Your task to perform on an android device: turn on the 24-hour format for clock Image 0: 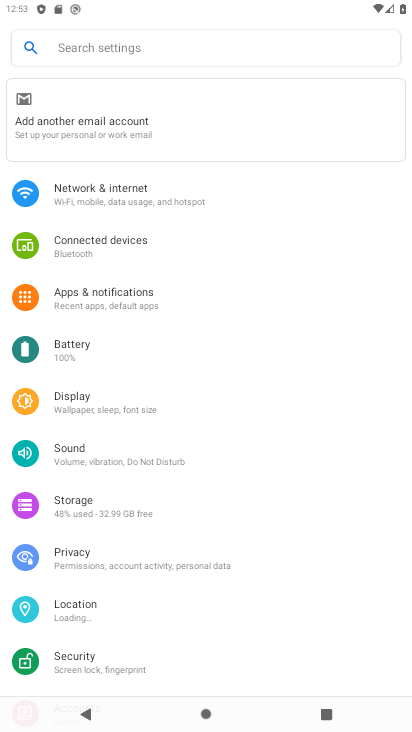
Step 0: press home button
Your task to perform on an android device: turn on the 24-hour format for clock Image 1: 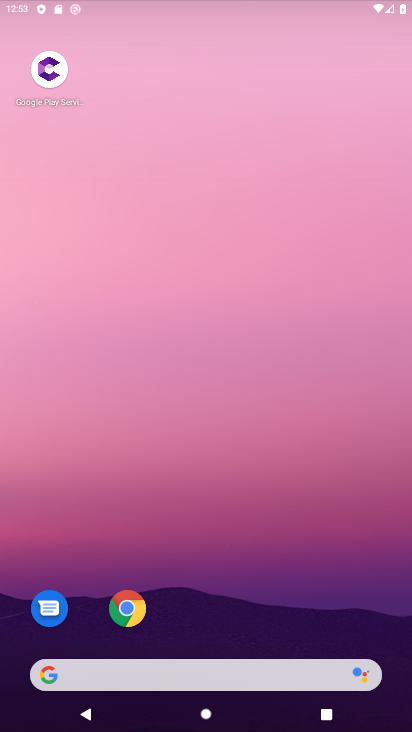
Step 1: drag from (240, 654) to (219, 73)
Your task to perform on an android device: turn on the 24-hour format for clock Image 2: 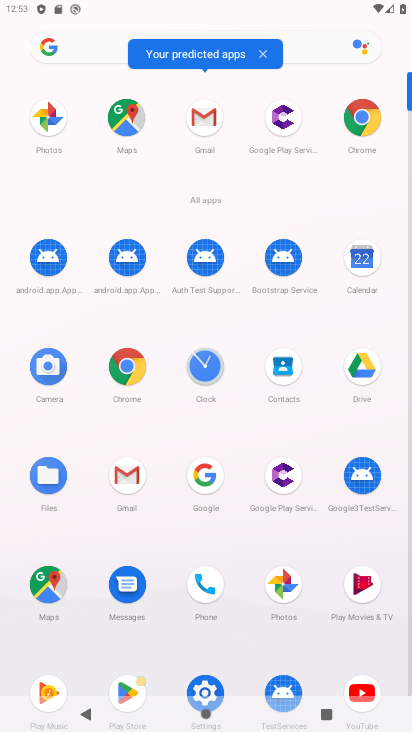
Step 2: click (205, 366)
Your task to perform on an android device: turn on the 24-hour format for clock Image 3: 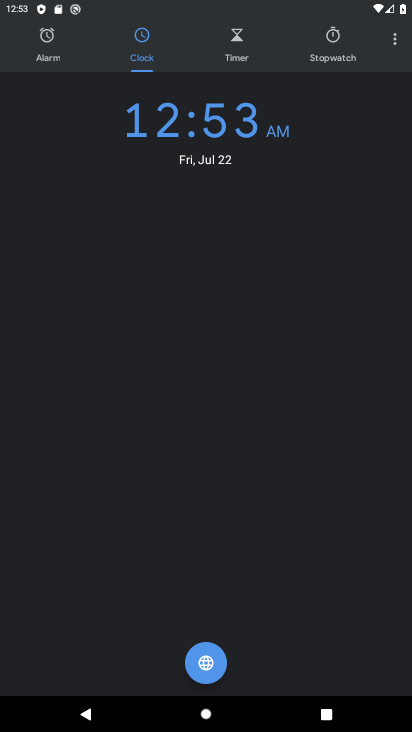
Step 3: click (391, 36)
Your task to perform on an android device: turn on the 24-hour format for clock Image 4: 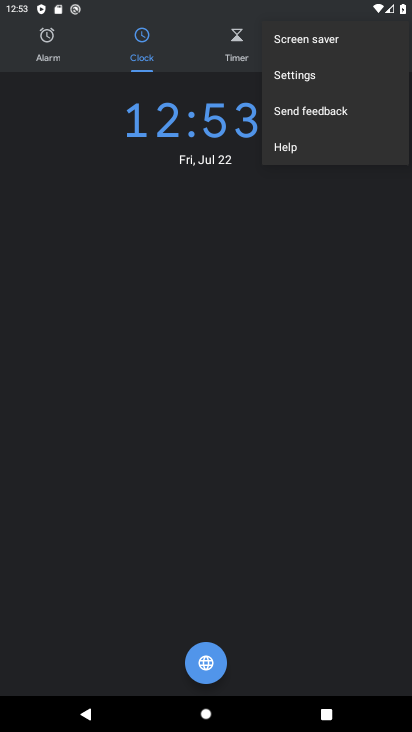
Step 4: click (300, 80)
Your task to perform on an android device: turn on the 24-hour format for clock Image 5: 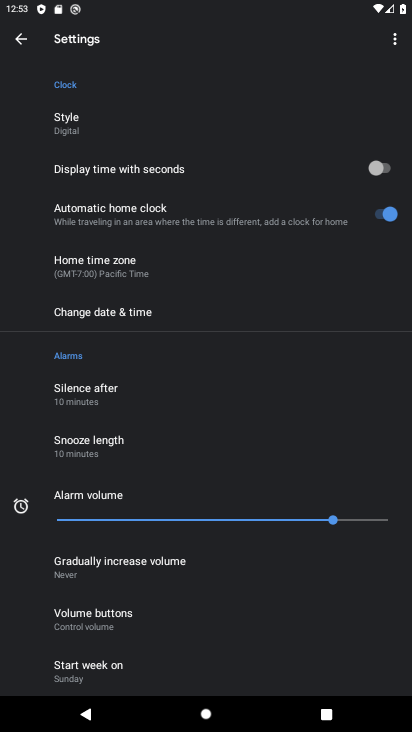
Step 5: click (141, 315)
Your task to perform on an android device: turn on the 24-hour format for clock Image 6: 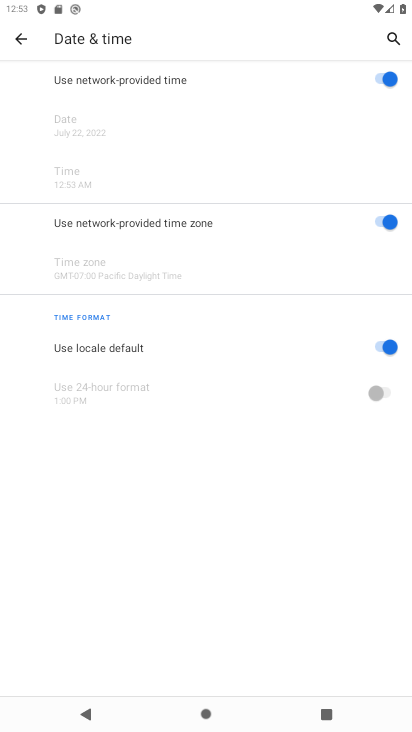
Step 6: click (386, 346)
Your task to perform on an android device: turn on the 24-hour format for clock Image 7: 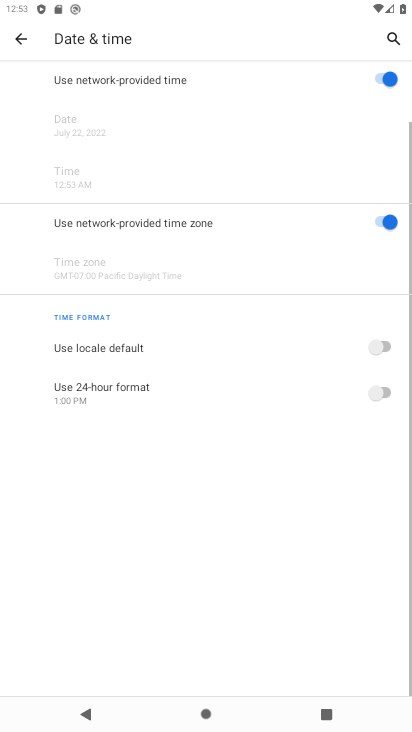
Step 7: click (381, 390)
Your task to perform on an android device: turn on the 24-hour format for clock Image 8: 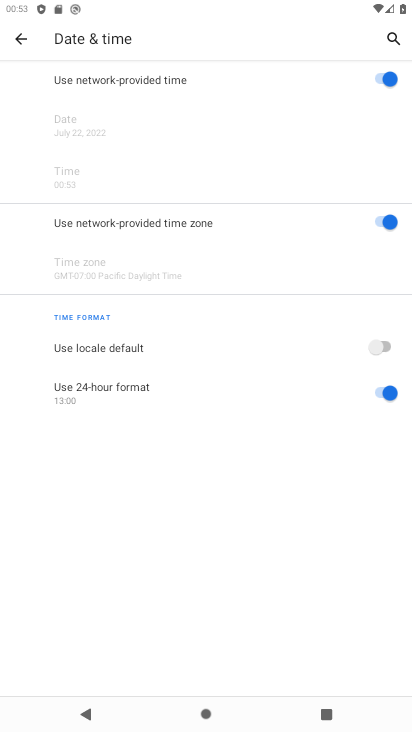
Step 8: task complete